Your task to perform on an android device: toggle pop-ups in chrome Image 0: 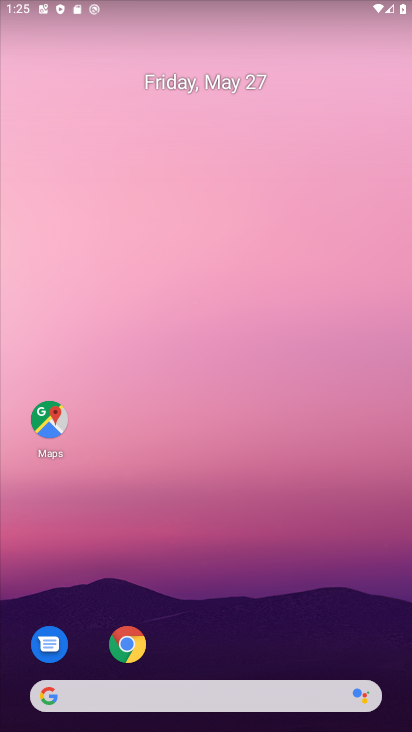
Step 0: drag from (231, 551) to (165, 30)
Your task to perform on an android device: toggle pop-ups in chrome Image 1: 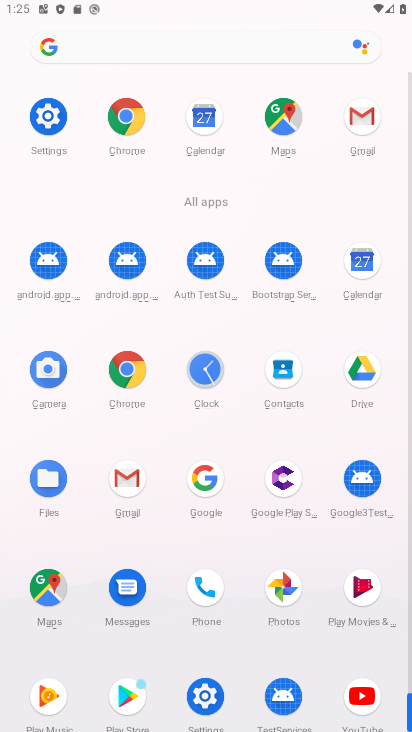
Step 1: drag from (15, 496) to (25, 202)
Your task to perform on an android device: toggle pop-ups in chrome Image 2: 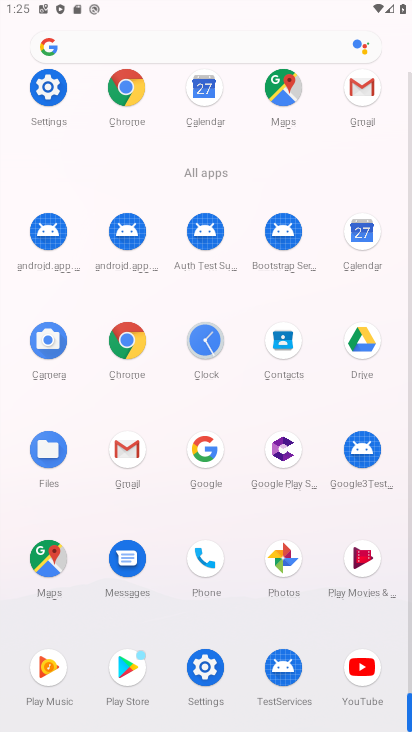
Step 2: click (126, 340)
Your task to perform on an android device: toggle pop-ups in chrome Image 3: 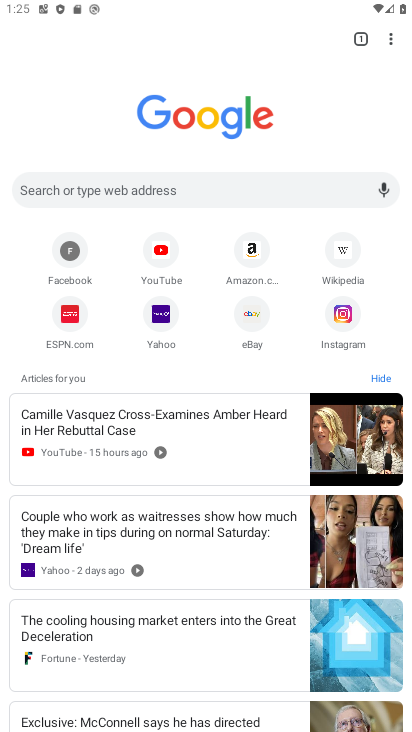
Step 3: drag from (386, 40) to (254, 325)
Your task to perform on an android device: toggle pop-ups in chrome Image 4: 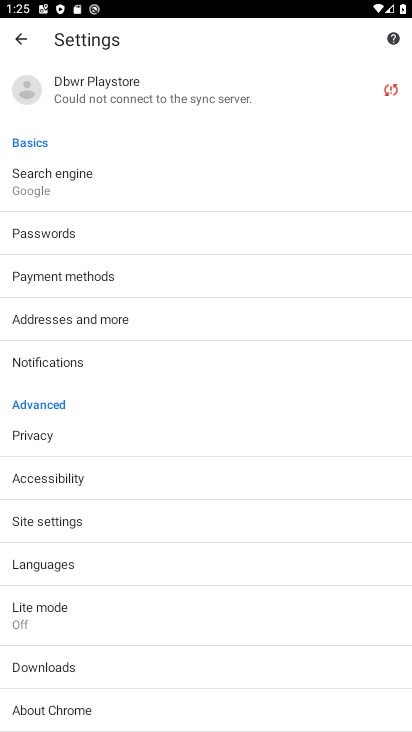
Step 4: click (65, 519)
Your task to perform on an android device: toggle pop-ups in chrome Image 5: 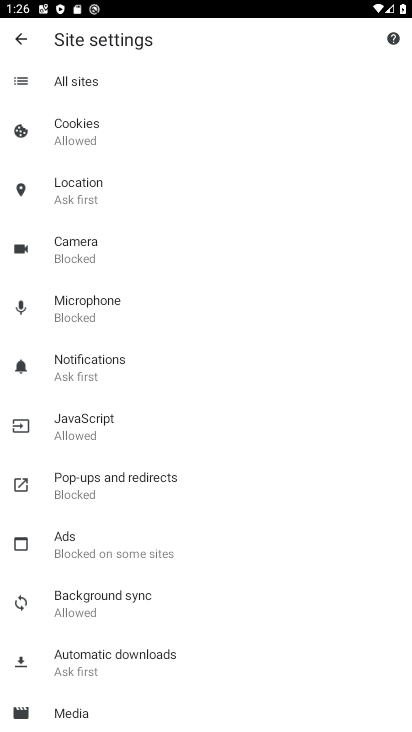
Step 5: click (111, 492)
Your task to perform on an android device: toggle pop-ups in chrome Image 6: 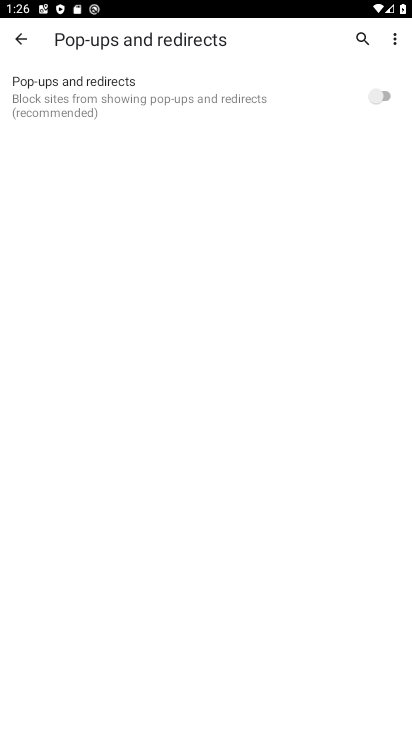
Step 6: click (370, 93)
Your task to perform on an android device: toggle pop-ups in chrome Image 7: 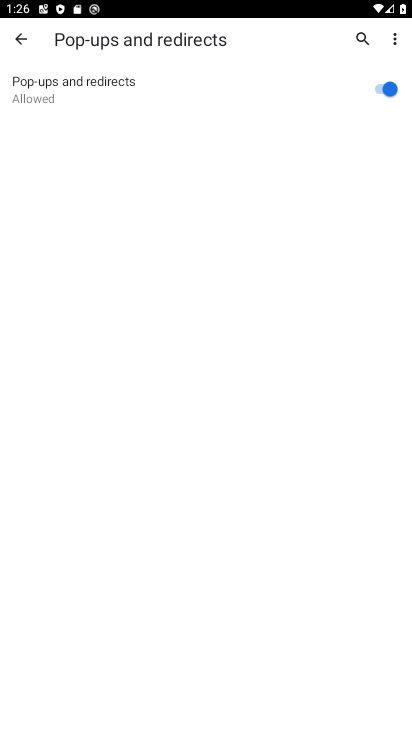
Step 7: task complete